Your task to perform on an android device: Open wifi settings Image 0: 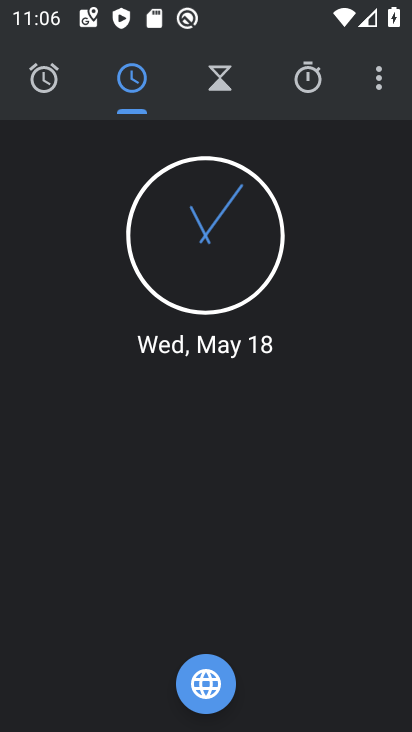
Step 0: press home button
Your task to perform on an android device: Open wifi settings Image 1: 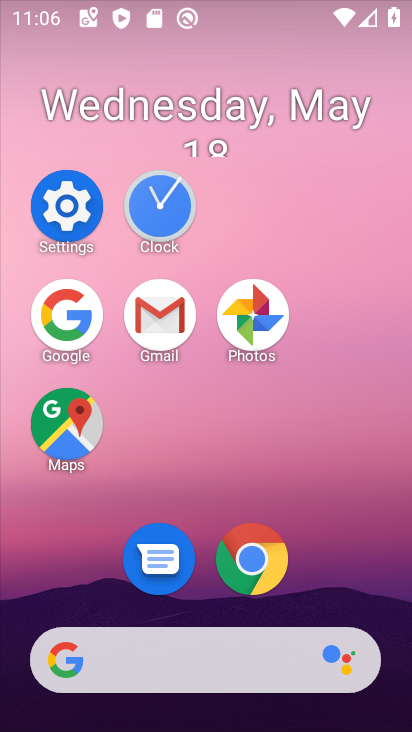
Step 1: click (71, 216)
Your task to perform on an android device: Open wifi settings Image 2: 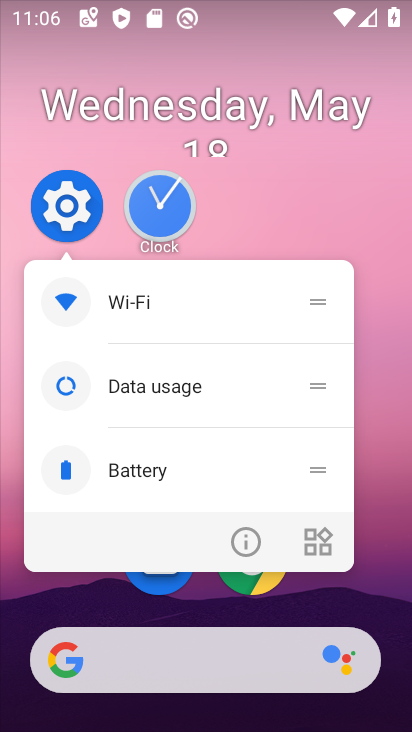
Step 2: click (130, 285)
Your task to perform on an android device: Open wifi settings Image 3: 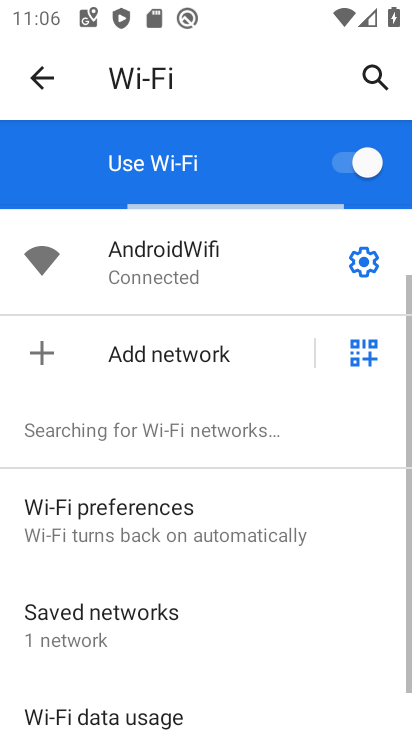
Step 3: click (370, 252)
Your task to perform on an android device: Open wifi settings Image 4: 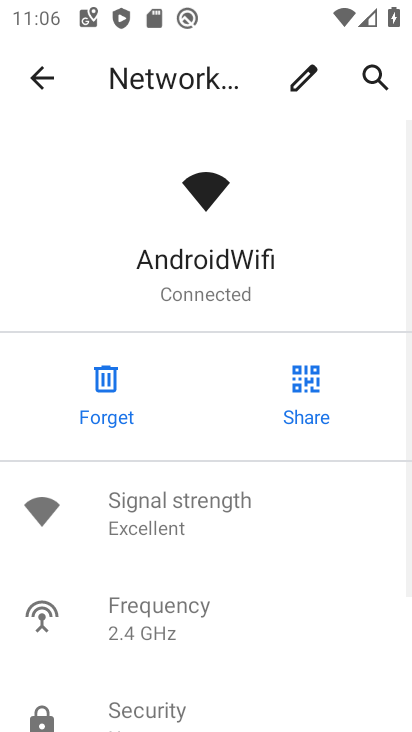
Step 4: task complete